Your task to perform on an android device: turn off improve location accuracy Image 0: 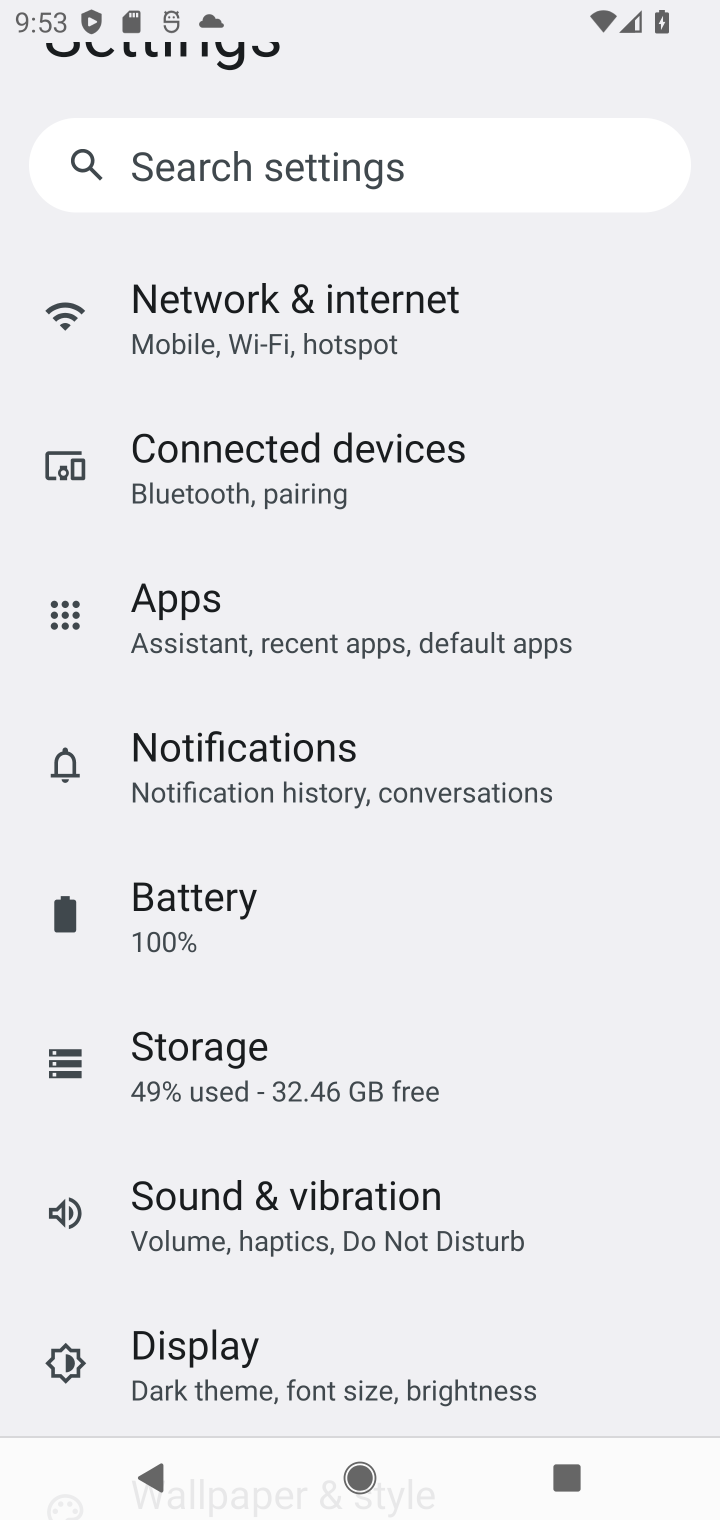
Step 0: drag from (272, 1299) to (456, 352)
Your task to perform on an android device: turn off improve location accuracy Image 1: 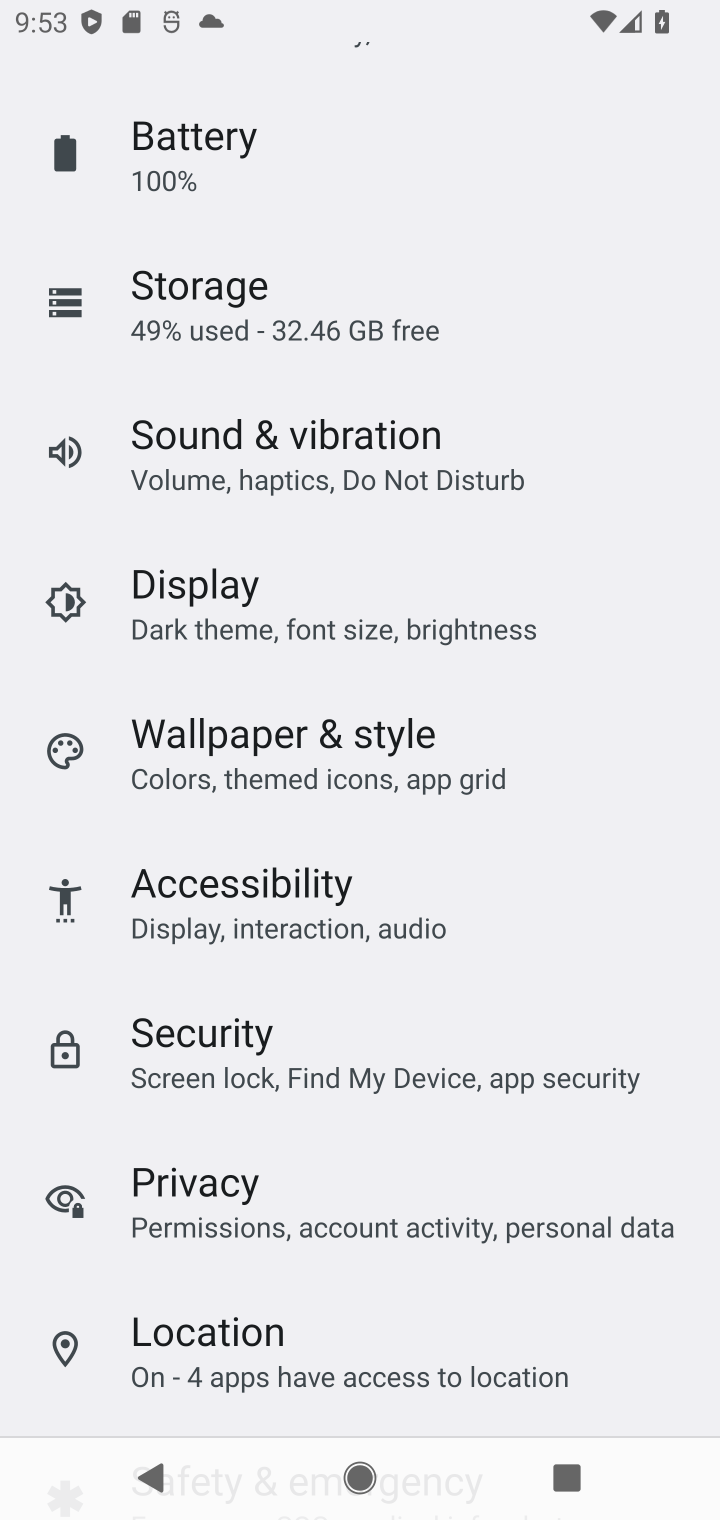
Step 1: click (247, 1337)
Your task to perform on an android device: turn off improve location accuracy Image 2: 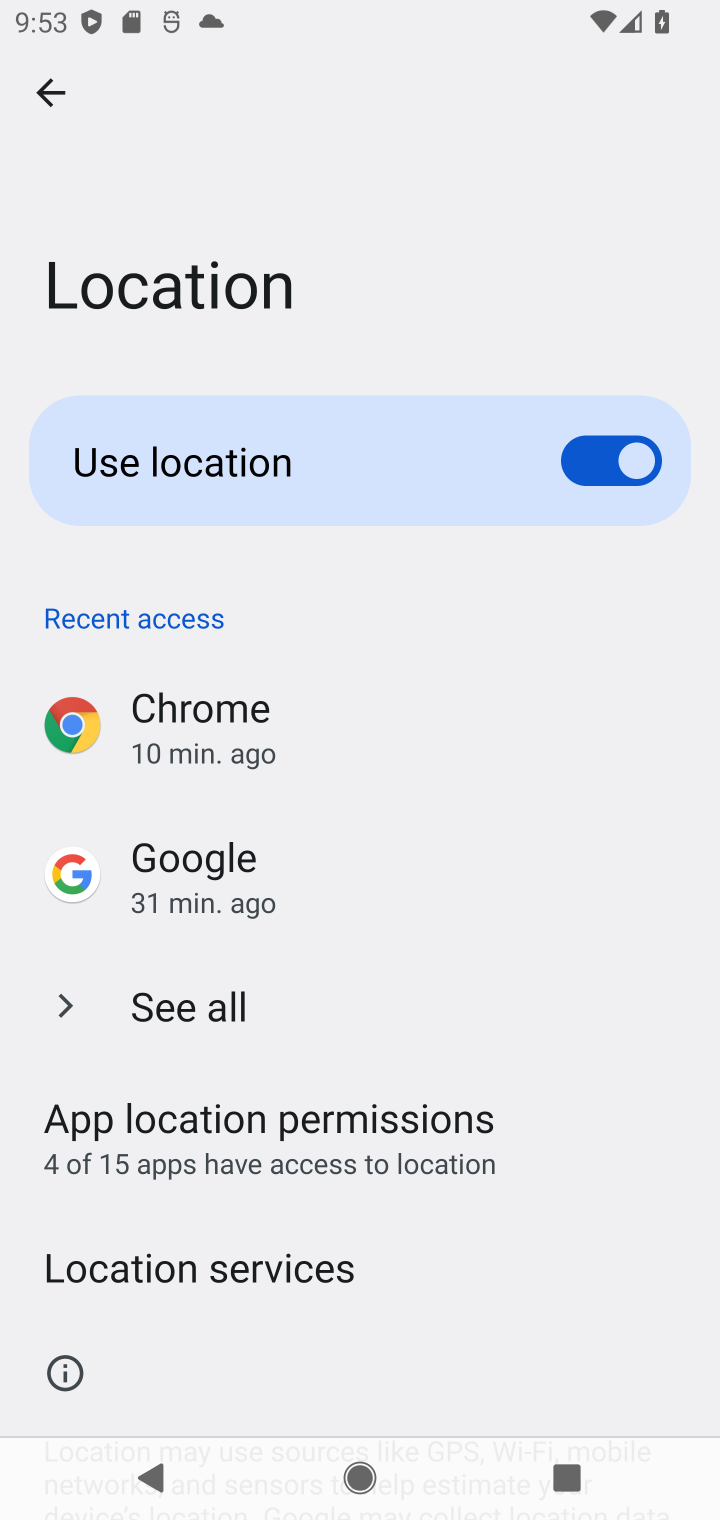
Step 2: drag from (284, 1311) to (458, 550)
Your task to perform on an android device: turn off improve location accuracy Image 3: 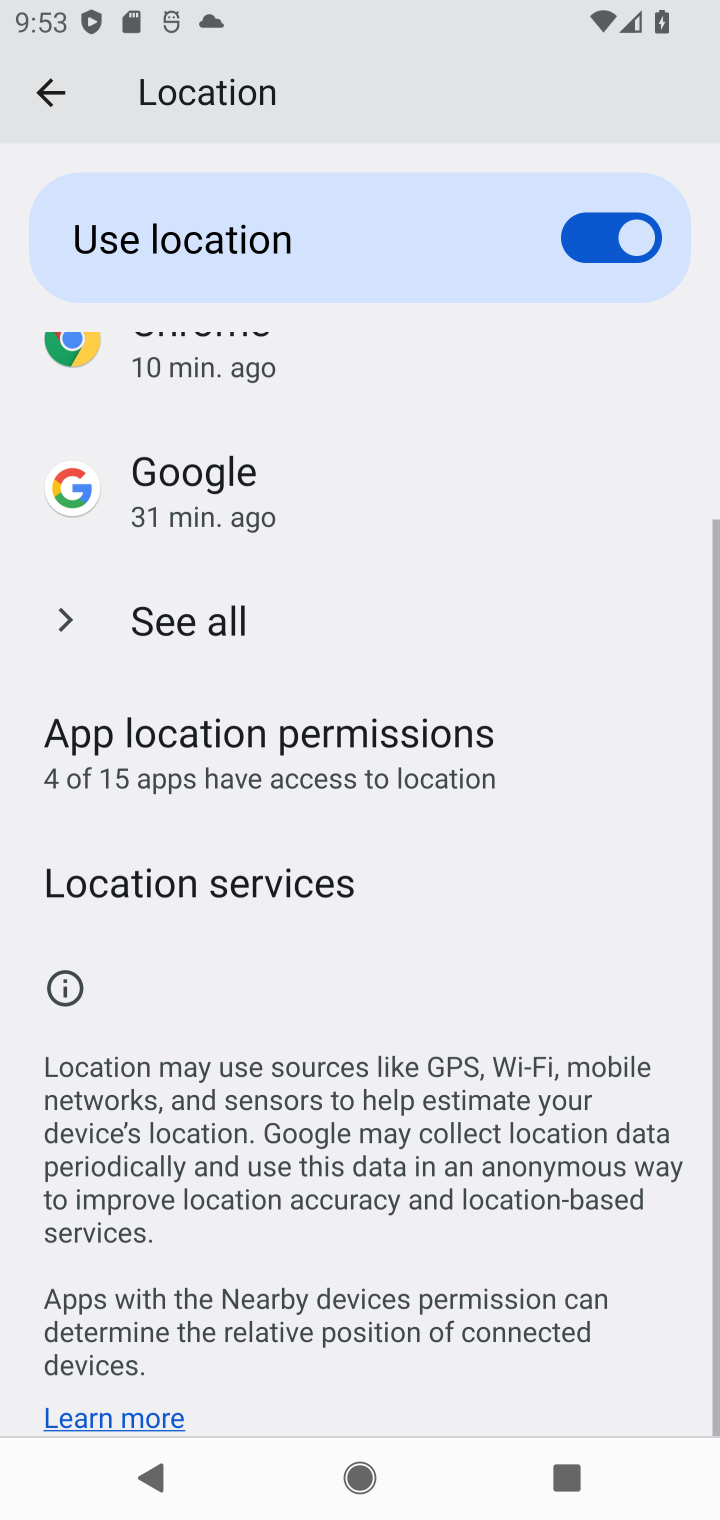
Step 3: click (294, 1050)
Your task to perform on an android device: turn off improve location accuracy Image 4: 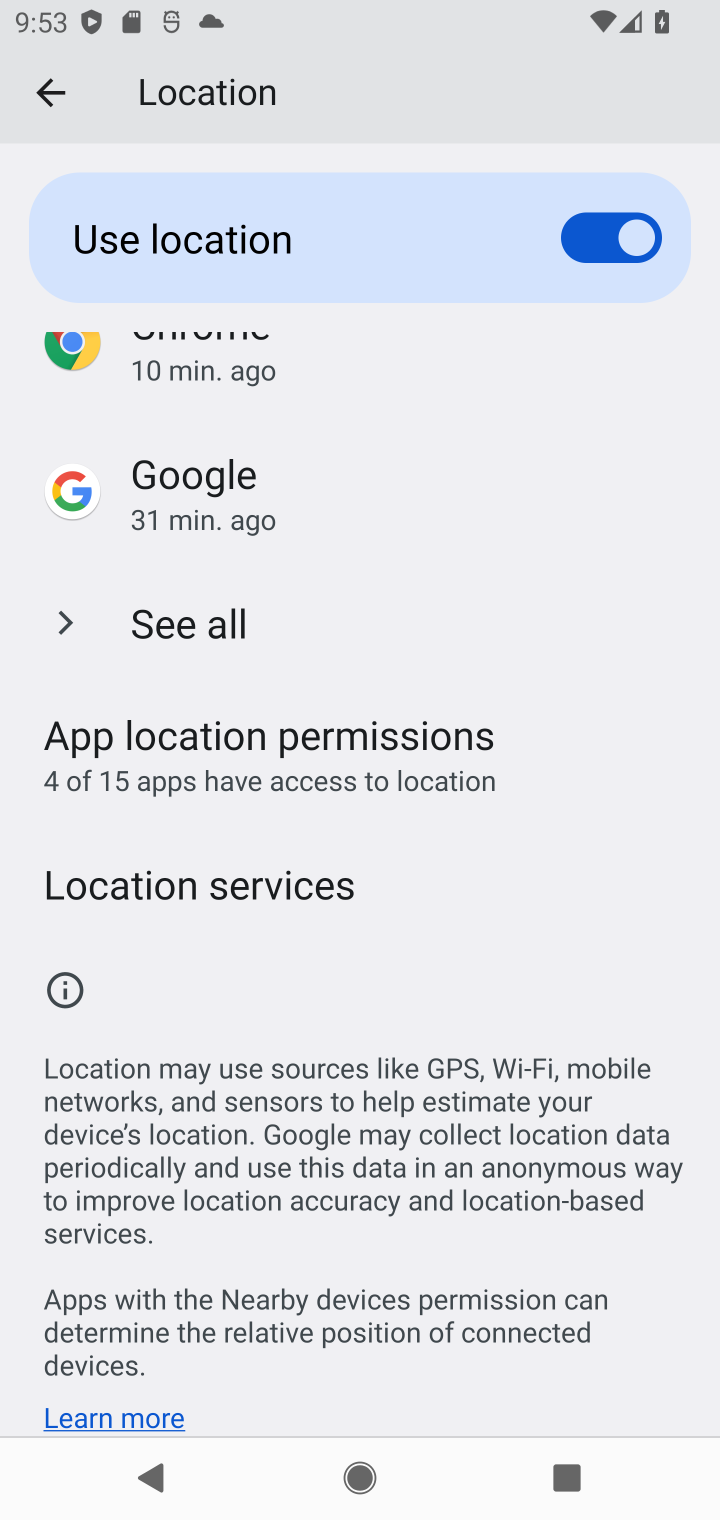
Step 4: click (236, 887)
Your task to perform on an android device: turn off improve location accuracy Image 5: 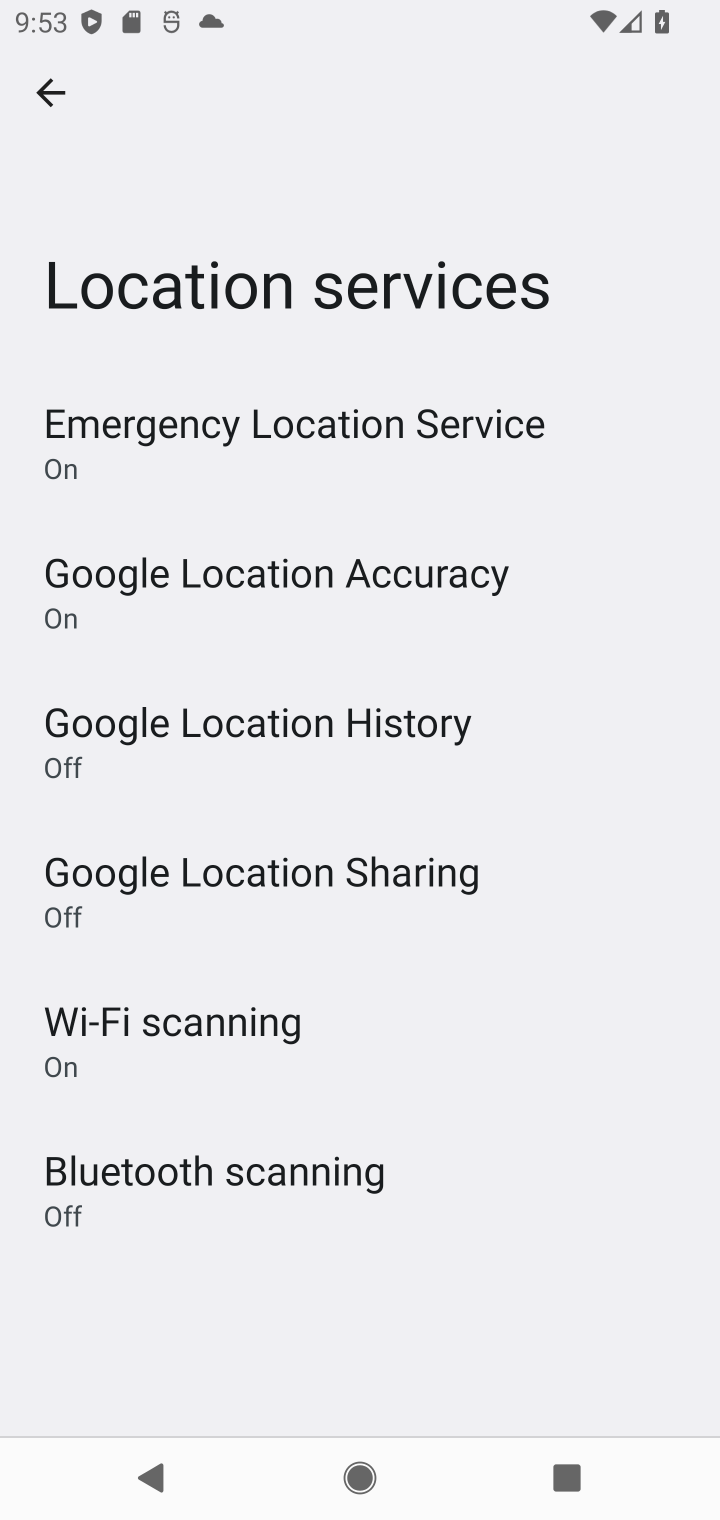
Step 5: click (374, 583)
Your task to perform on an android device: turn off improve location accuracy Image 6: 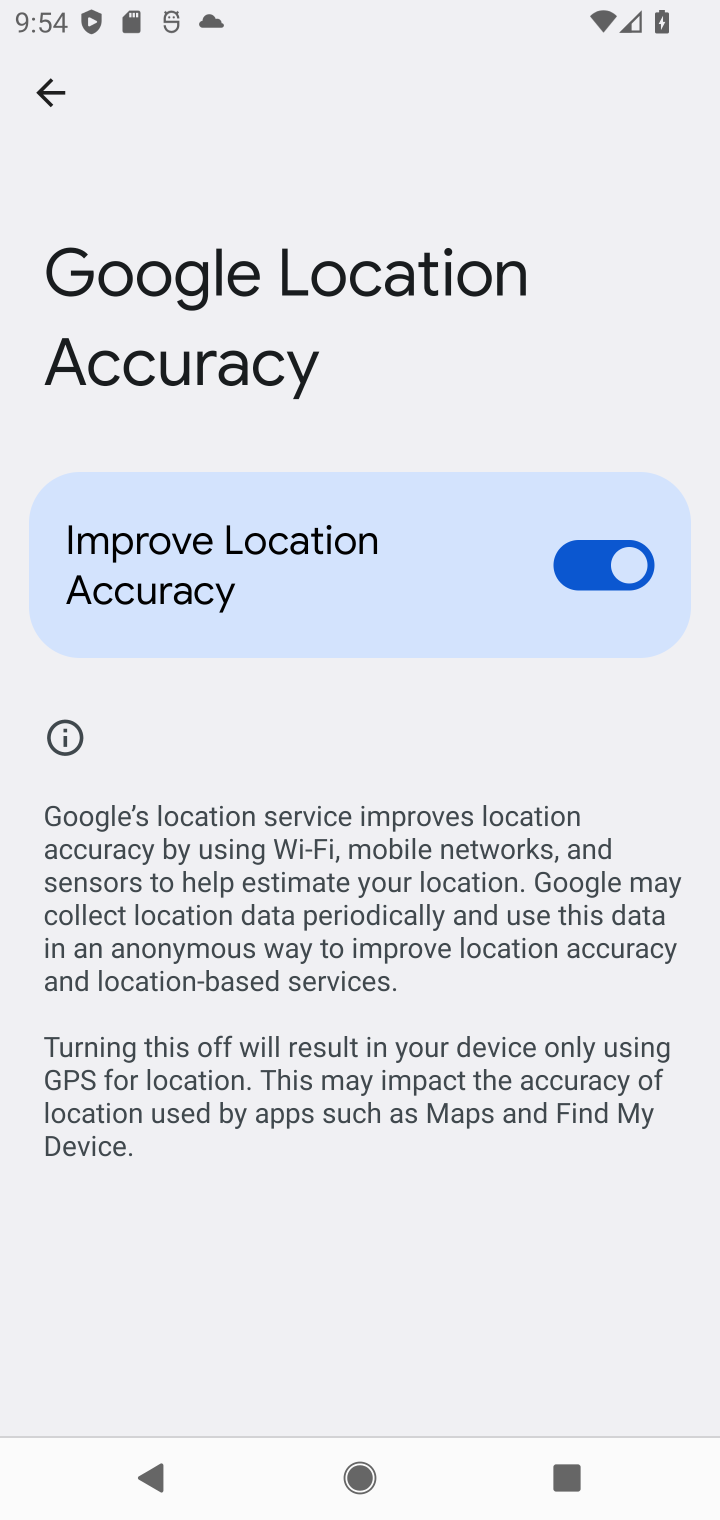
Step 6: click (559, 557)
Your task to perform on an android device: turn off improve location accuracy Image 7: 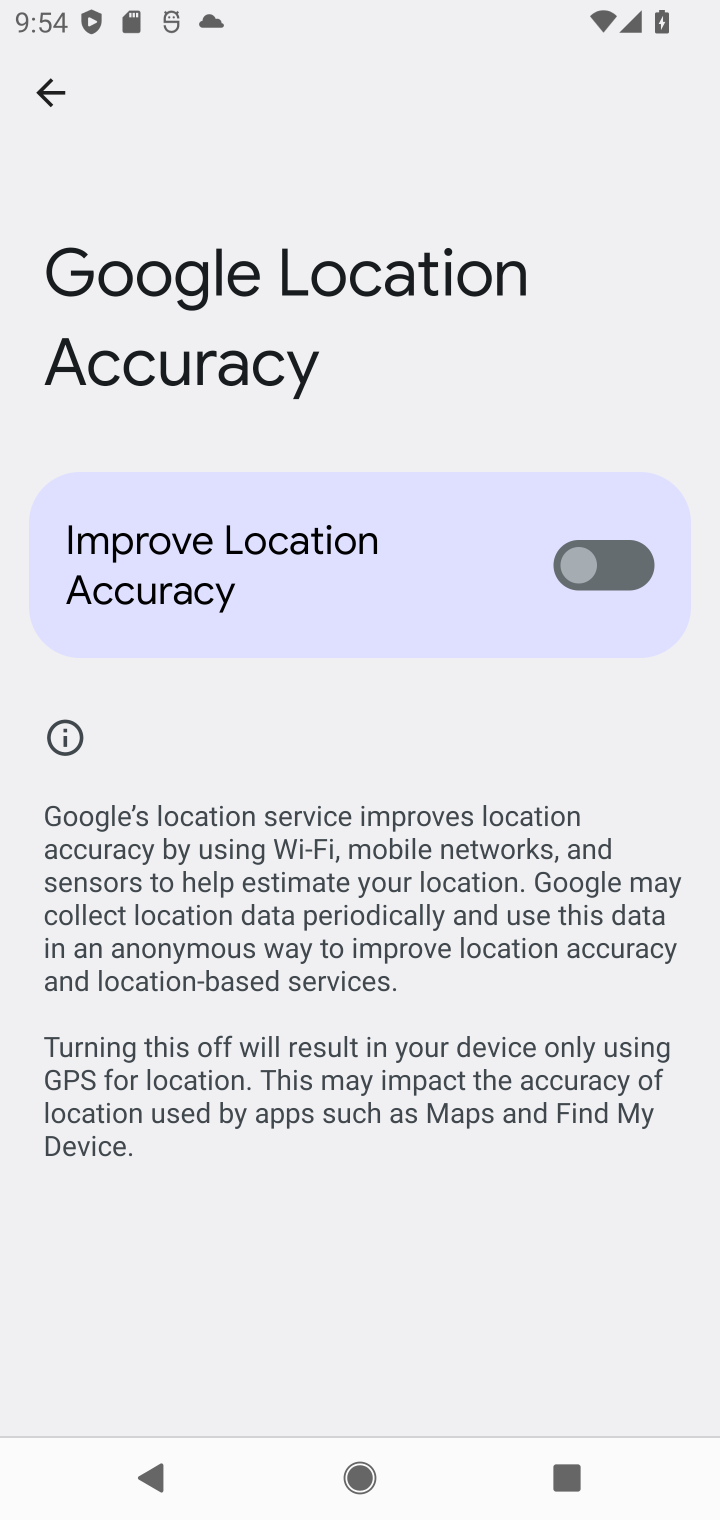
Step 7: task complete